Your task to perform on an android device: Check the news Image 0: 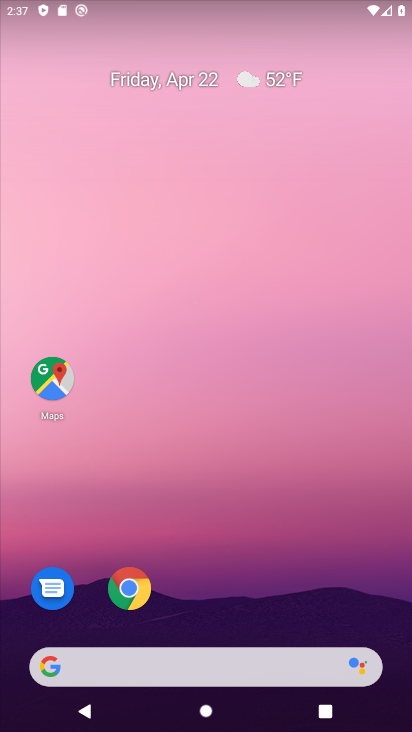
Step 0: drag from (19, 257) to (411, 261)
Your task to perform on an android device: Check the news Image 1: 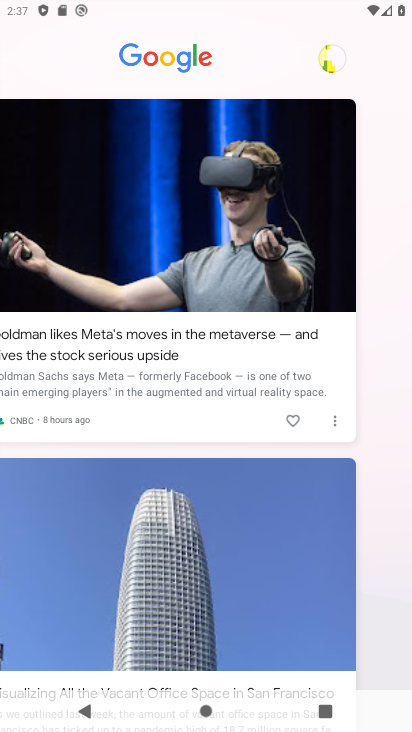
Step 1: task complete